Your task to perform on an android device: open app "VLC for Android" (install if not already installed) Image 0: 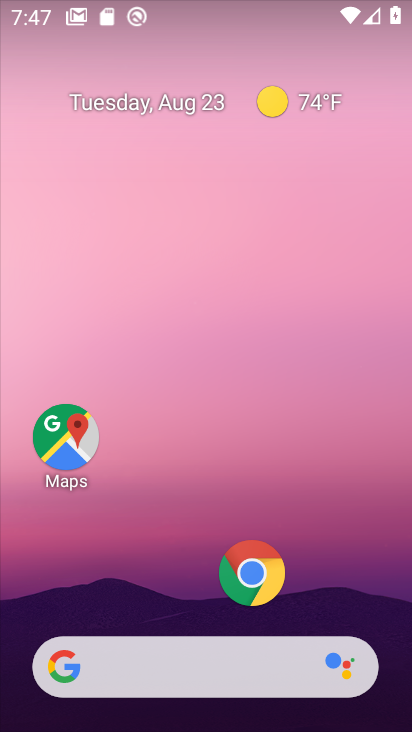
Step 0: drag from (180, 549) to (220, 33)
Your task to perform on an android device: open app "VLC for Android" (install if not already installed) Image 1: 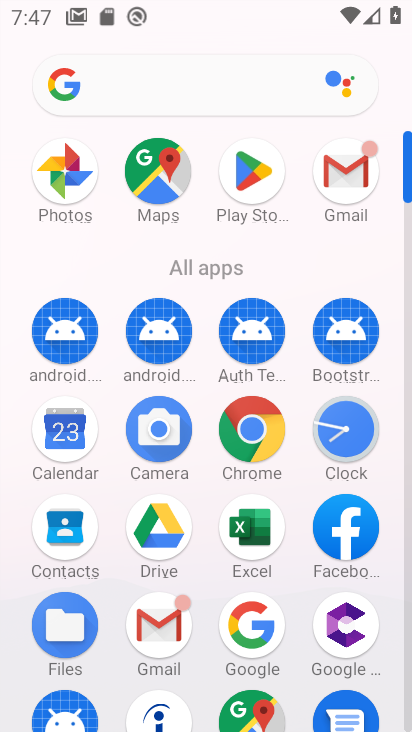
Step 1: click (248, 175)
Your task to perform on an android device: open app "VLC for Android" (install if not already installed) Image 2: 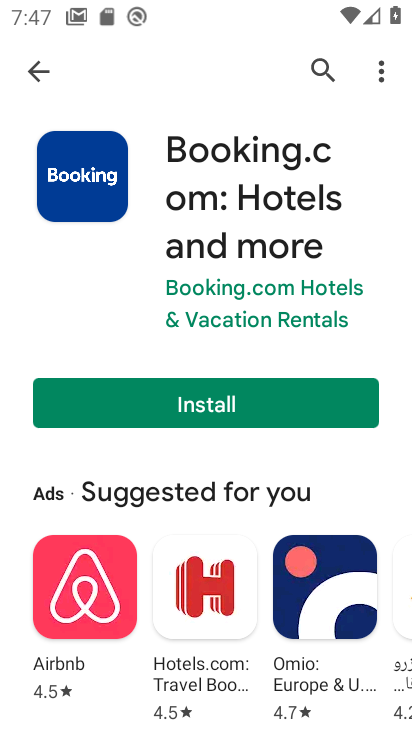
Step 2: click (39, 75)
Your task to perform on an android device: open app "VLC for Android" (install if not already installed) Image 3: 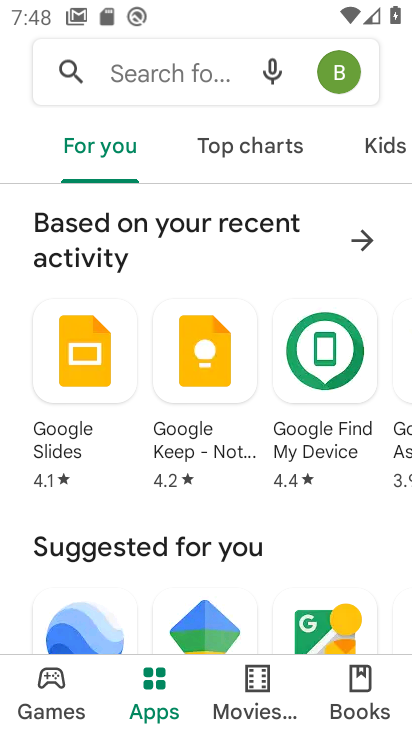
Step 3: click (185, 57)
Your task to perform on an android device: open app "VLC for Android" (install if not already installed) Image 4: 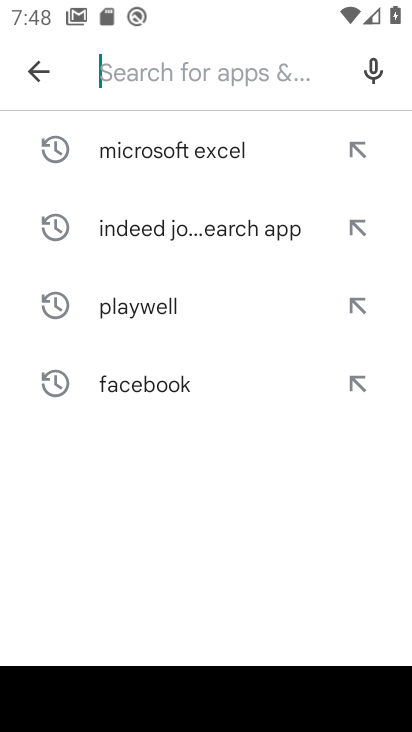
Step 4: type "VLC for Android"
Your task to perform on an android device: open app "VLC for Android" (install if not already installed) Image 5: 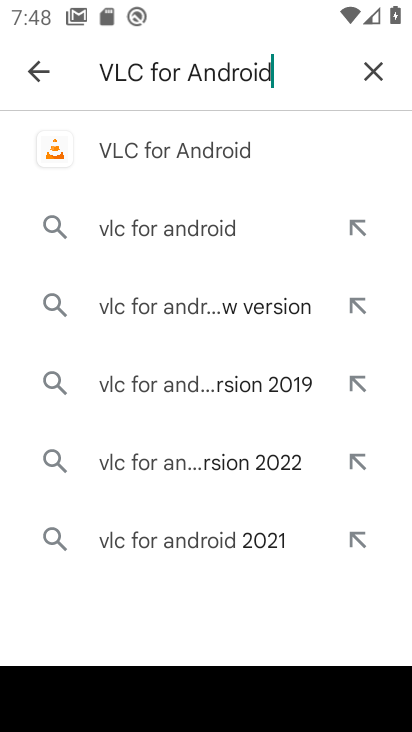
Step 5: click (190, 145)
Your task to perform on an android device: open app "VLC for Android" (install if not already installed) Image 6: 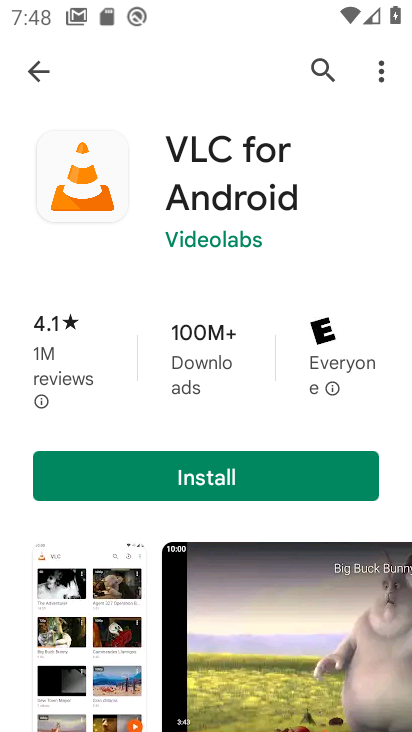
Step 6: click (229, 480)
Your task to perform on an android device: open app "VLC for Android" (install if not already installed) Image 7: 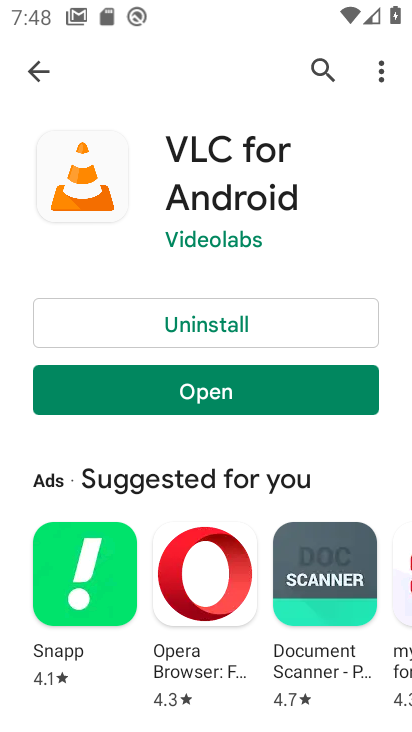
Step 7: click (198, 393)
Your task to perform on an android device: open app "VLC for Android" (install if not already installed) Image 8: 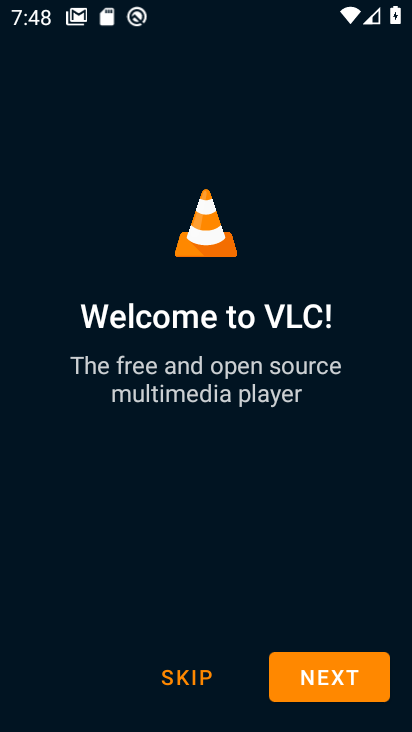
Step 8: click (333, 692)
Your task to perform on an android device: open app "VLC for Android" (install if not already installed) Image 9: 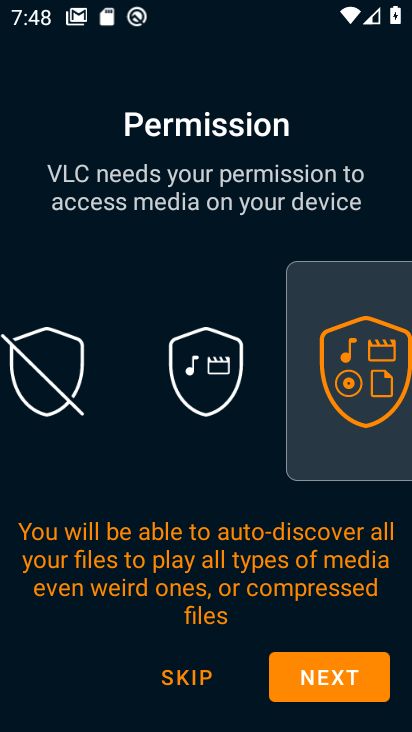
Step 9: click (333, 692)
Your task to perform on an android device: open app "VLC for Android" (install if not already installed) Image 10: 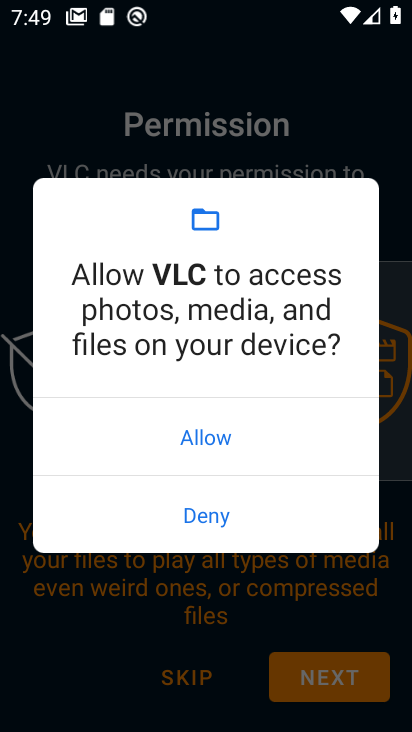
Step 10: click (202, 439)
Your task to perform on an android device: open app "VLC for Android" (install if not already installed) Image 11: 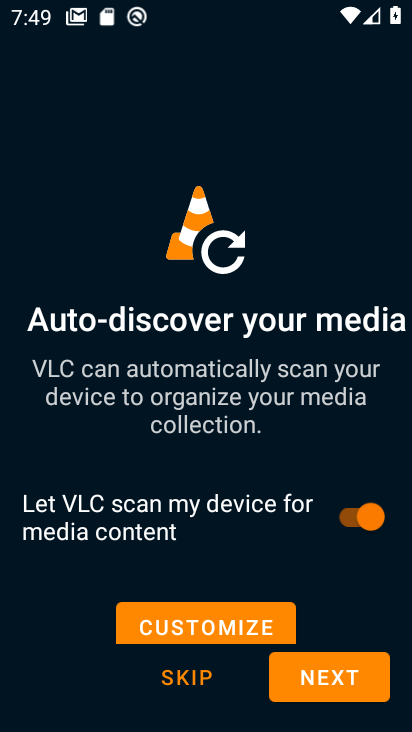
Step 11: click (346, 685)
Your task to perform on an android device: open app "VLC for Android" (install if not already installed) Image 12: 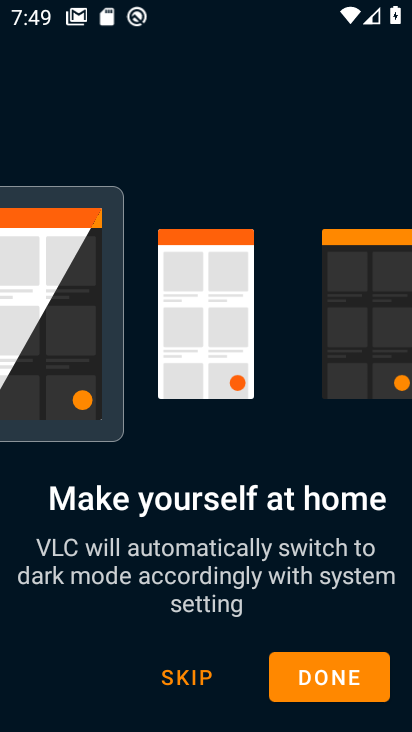
Step 12: click (346, 685)
Your task to perform on an android device: open app "VLC for Android" (install if not already installed) Image 13: 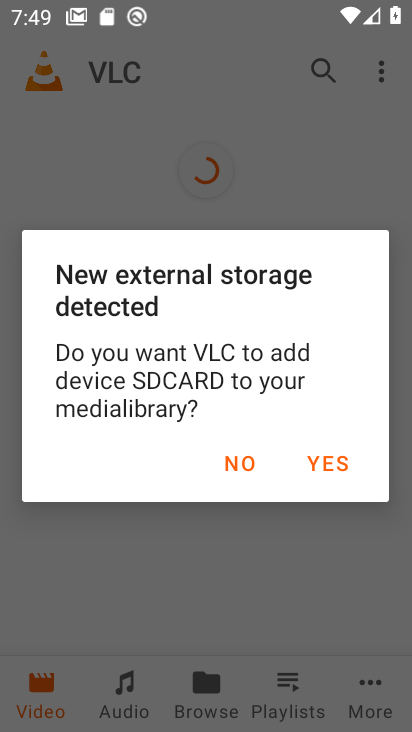
Step 13: click (334, 469)
Your task to perform on an android device: open app "VLC for Android" (install if not already installed) Image 14: 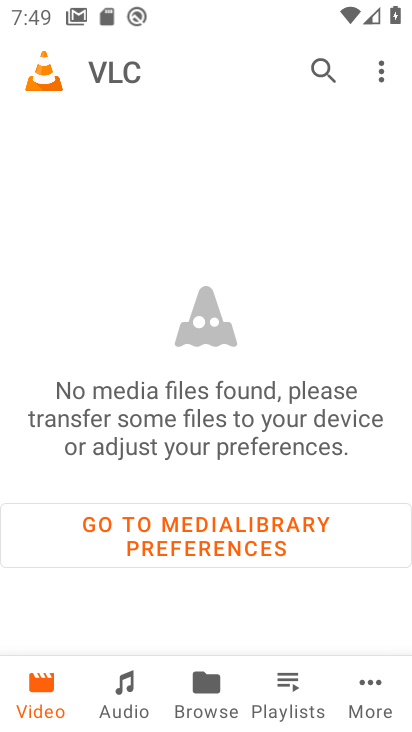
Step 14: task complete